Your task to perform on an android device: Search for logitech g910 on costco.com, select the first entry, add it to the cart, then select checkout. Image 0: 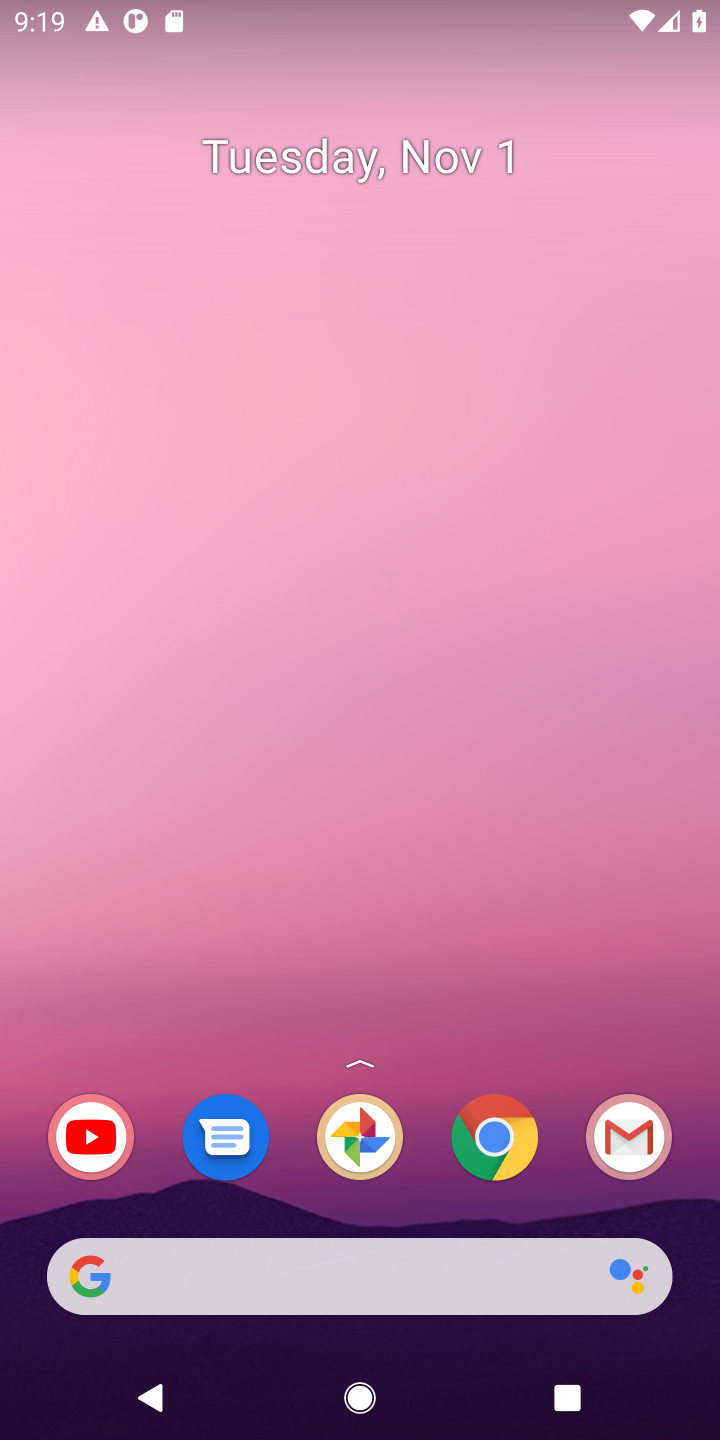
Step 0: click (310, 1263)
Your task to perform on an android device: Search for logitech g910 on costco.com, select the first entry, add it to the cart, then select checkout. Image 1: 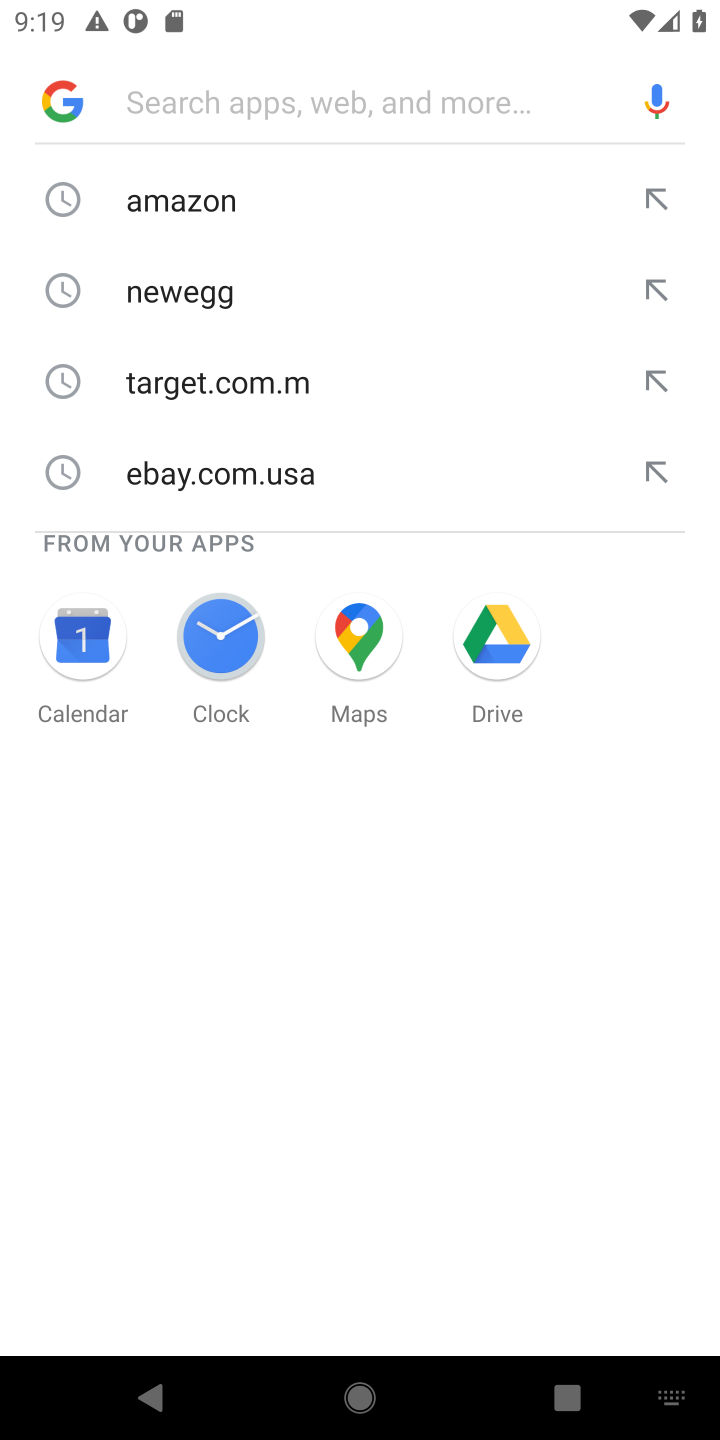
Step 1: type "costco.com"
Your task to perform on an android device: Search for logitech g910 on costco.com, select the first entry, add it to the cart, then select checkout. Image 2: 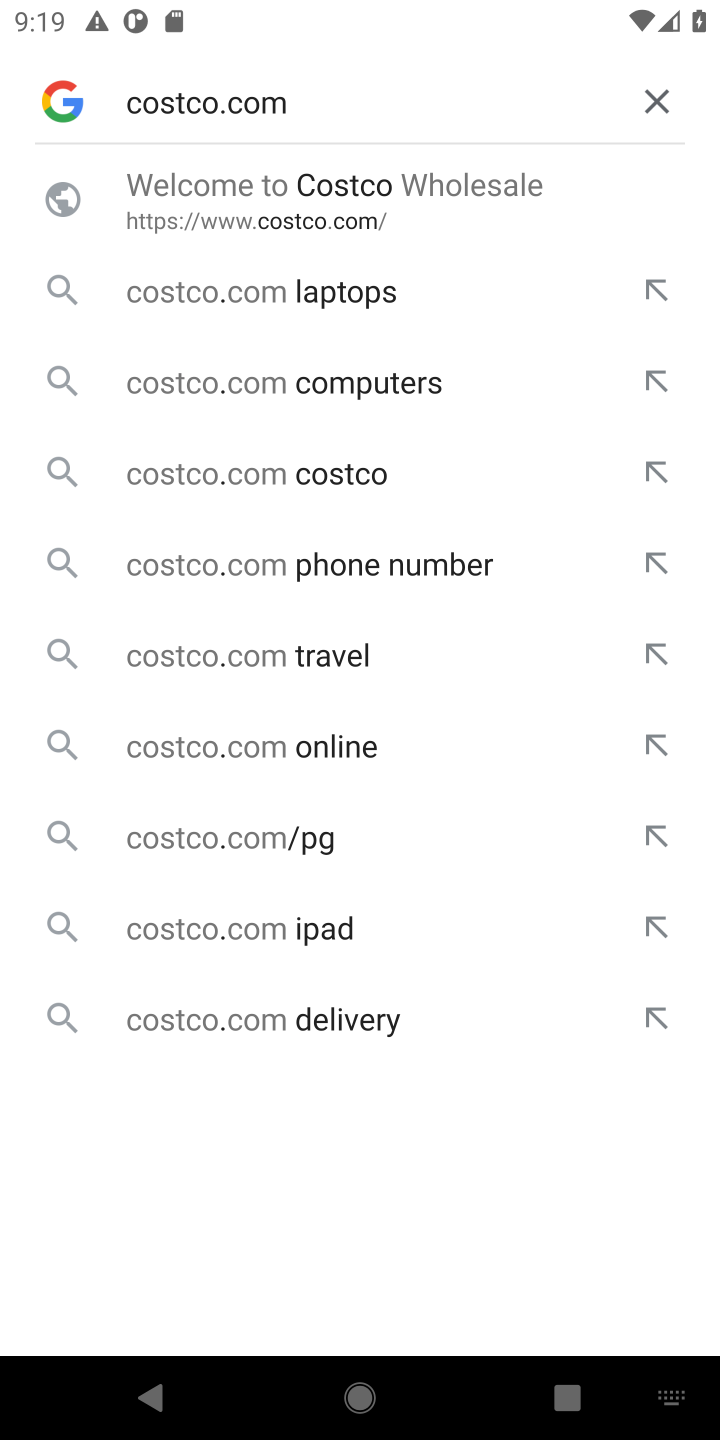
Step 2: click (349, 198)
Your task to perform on an android device: Search for logitech g910 on costco.com, select the first entry, add it to the cart, then select checkout. Image 3: 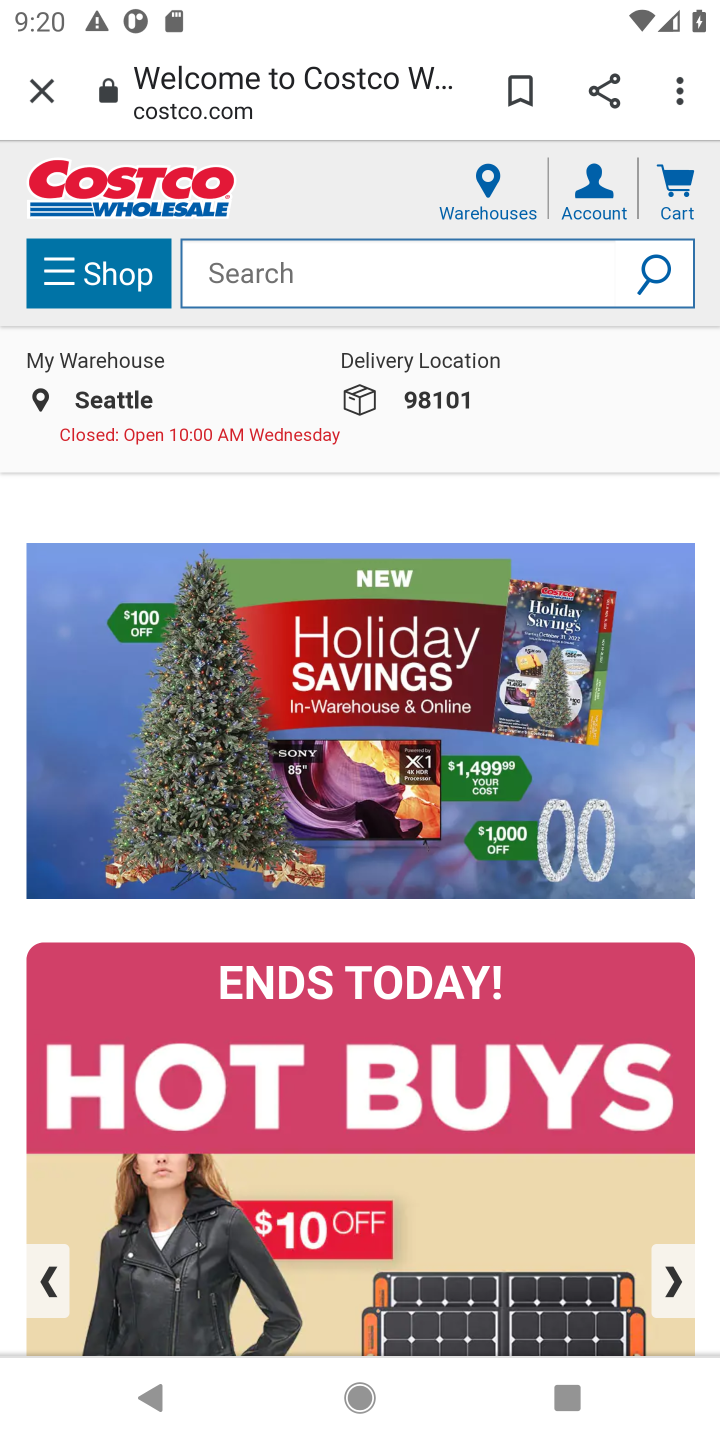
Step 3: click (384, 279)
Your task to perform on an android device: Search for logitech g910 on costco.com, select the first entry, add it to the cart, then select checkout. Image 4: 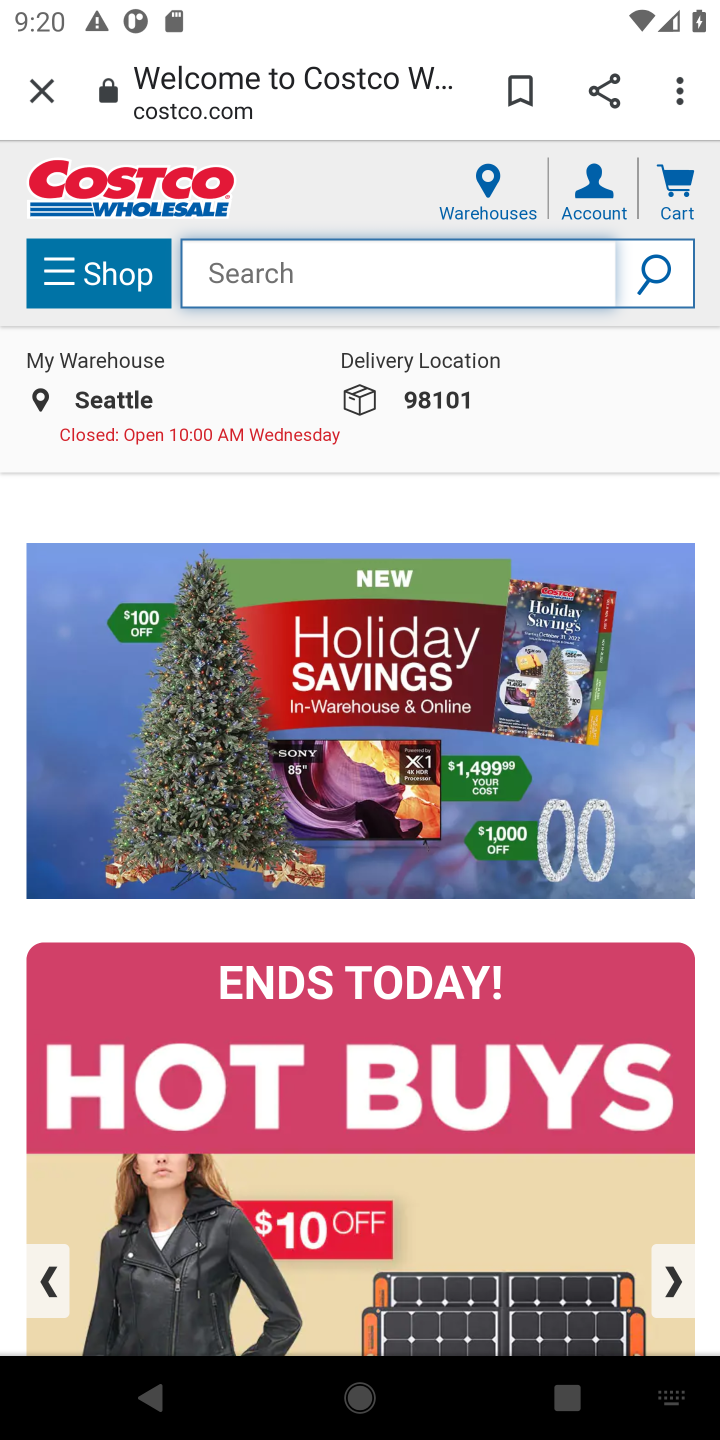
Step 4: type " g910 "
Your task to perform on an android device: Search for logitech g910 on costco.com, select the first entry, add it to the cart, then select checkout. Image 5: 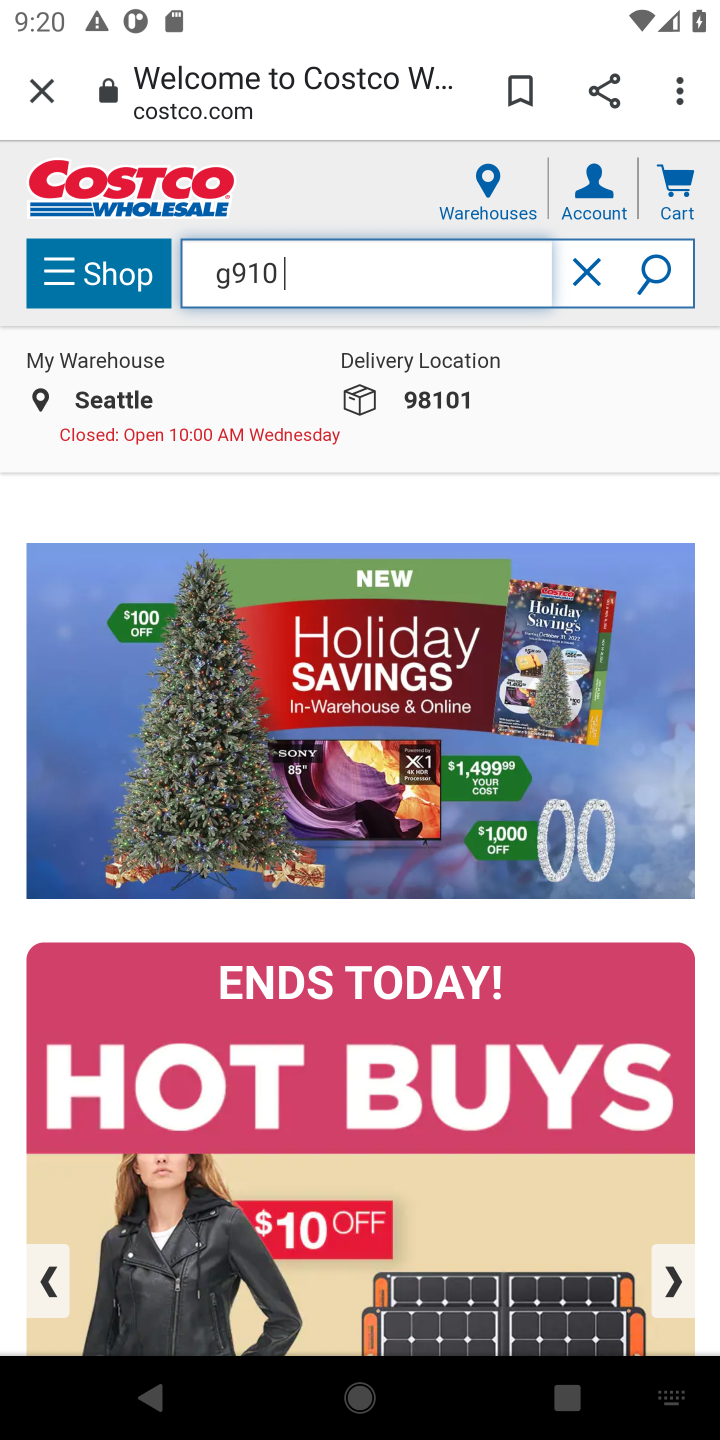
Step 5: click (646, 263)
Your task to perform on an android device: Search for logitech g910 on costco.com, select the first entry, add it to the cart, then select checkout. Image 6: 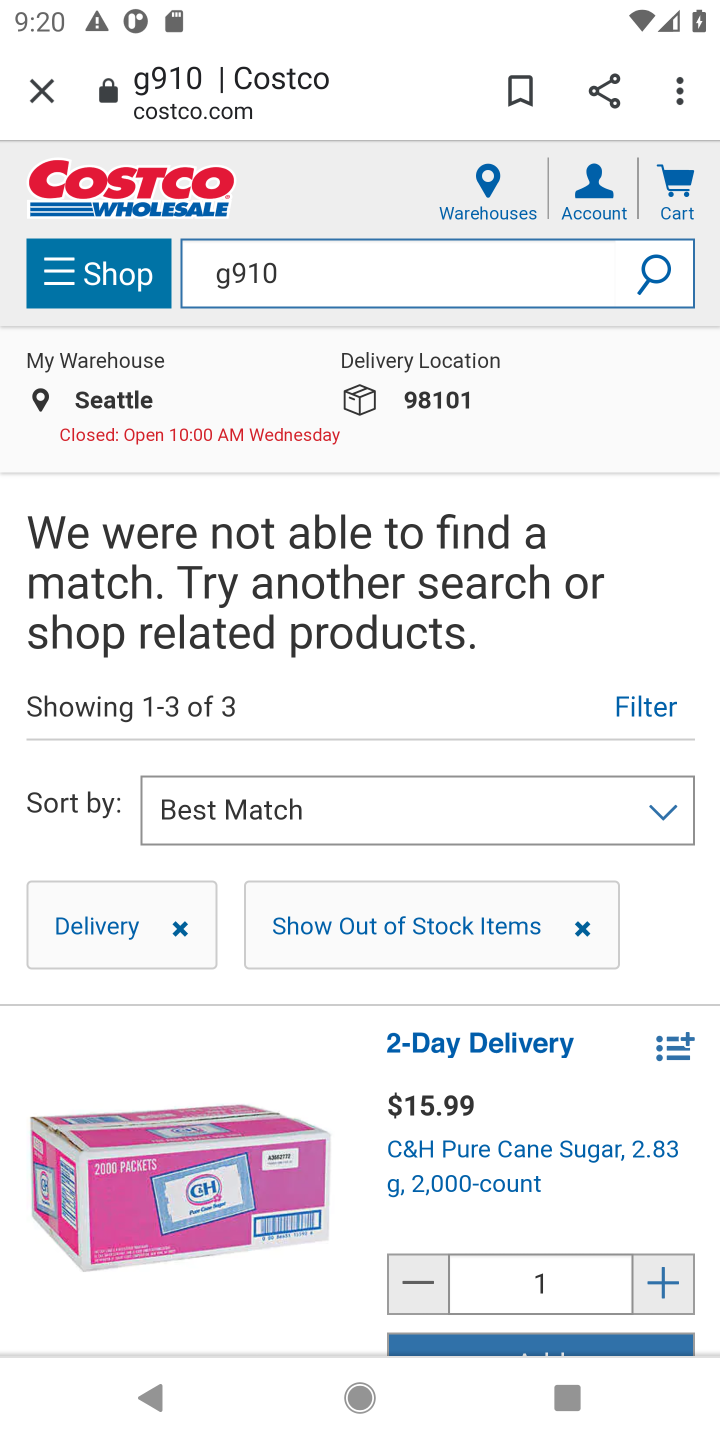
Step 6: click (451, 287)
Your task to perform on an android device: Search for logitech g910 on costco.com, select the first entry, add it to the cart, then select checkout. Image 7: 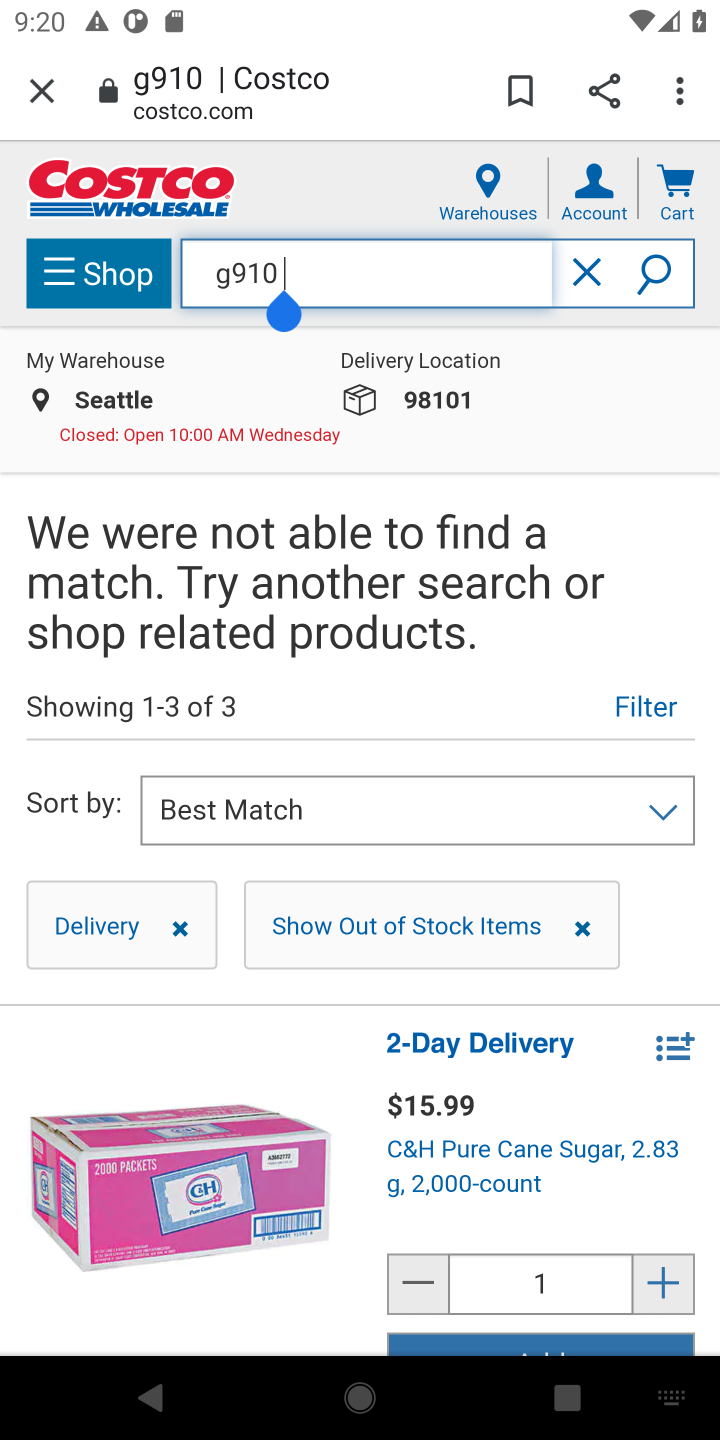
Step 7: click (588, 262)
Your task to perform on an android device: Search for logitech g910 on costco.com, select the first entry, add it to the cart, then select checkout. Image 8: 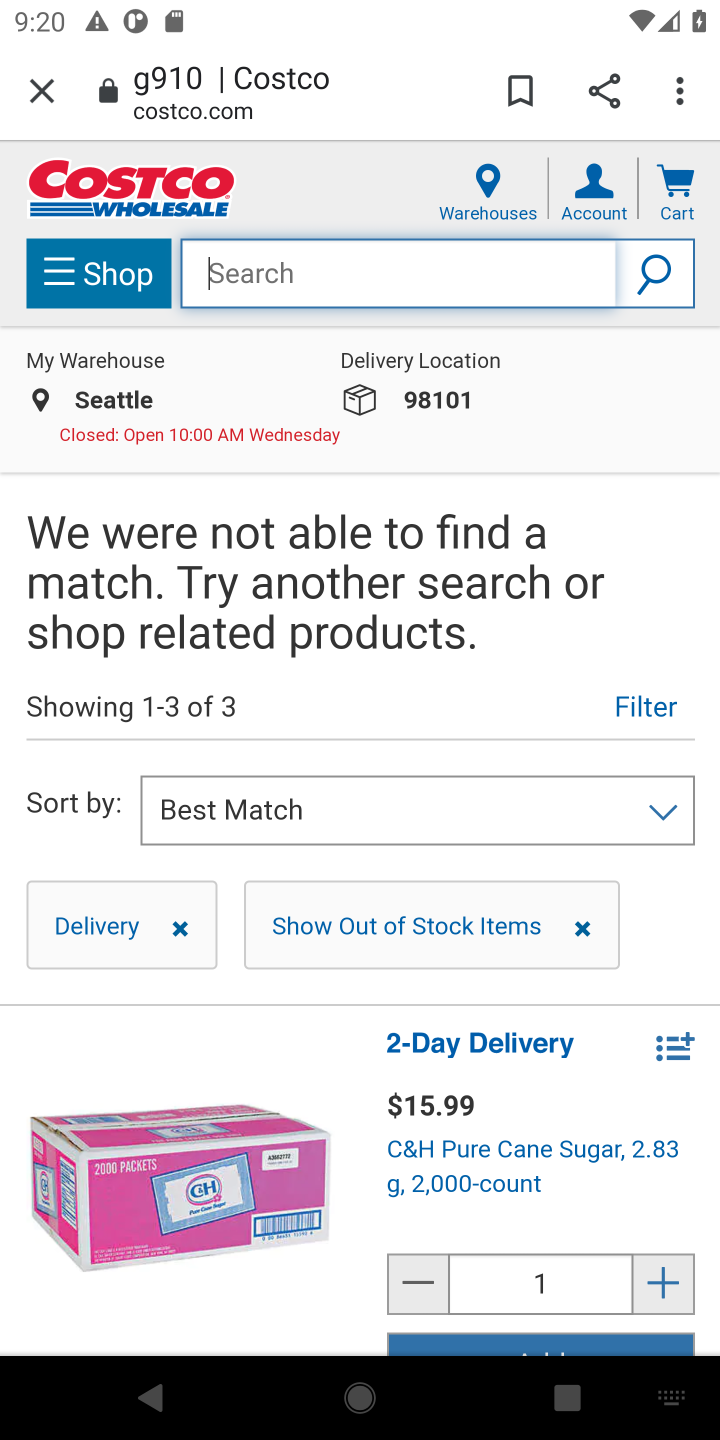
Step 8: type " logitech g910 "
Your task to perform on an android device: Search for logitech g910 on costco.com, select the first entry, add it to the cart, then select checkout. Image 9: 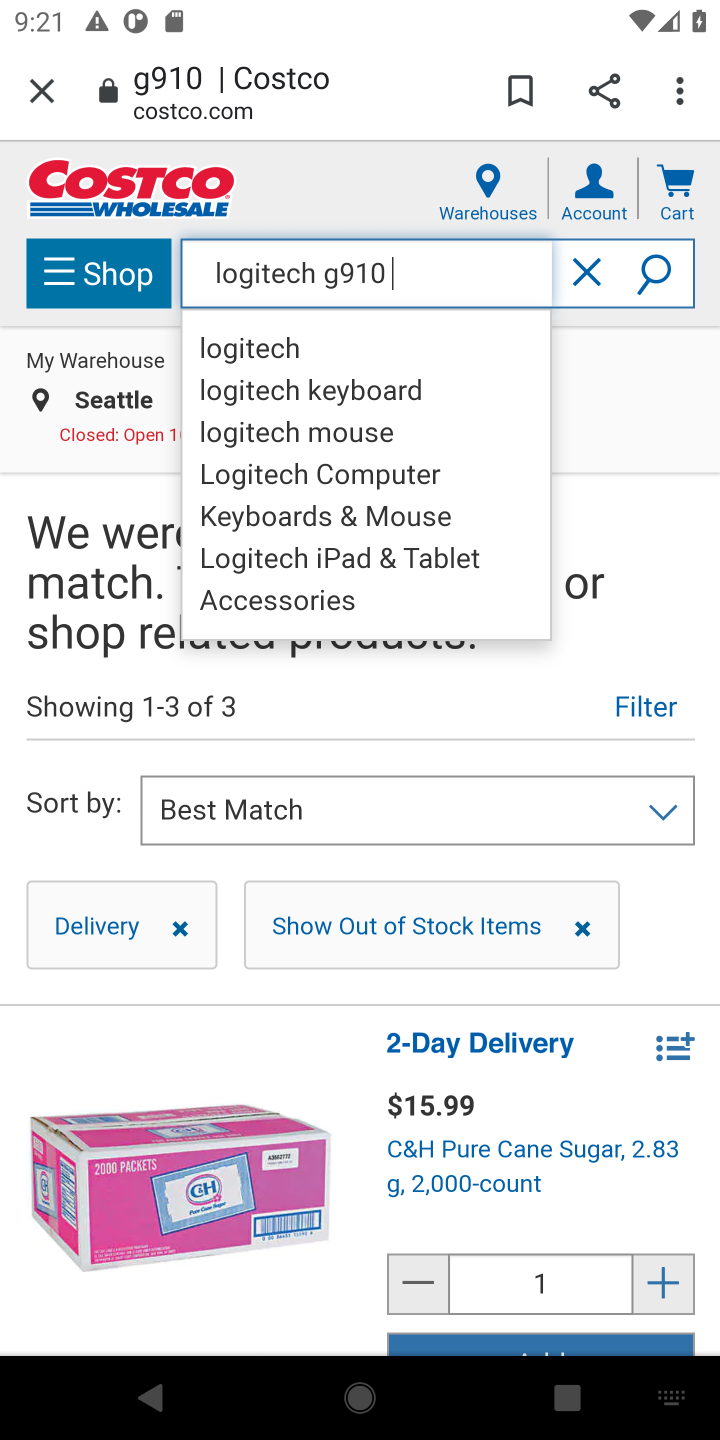
Step 9: click (277, 346)
Your task to perform on an android device: Search for logitech g910 on costco.com, select the first entry, add it to the cart, then select checkout. Image 10: 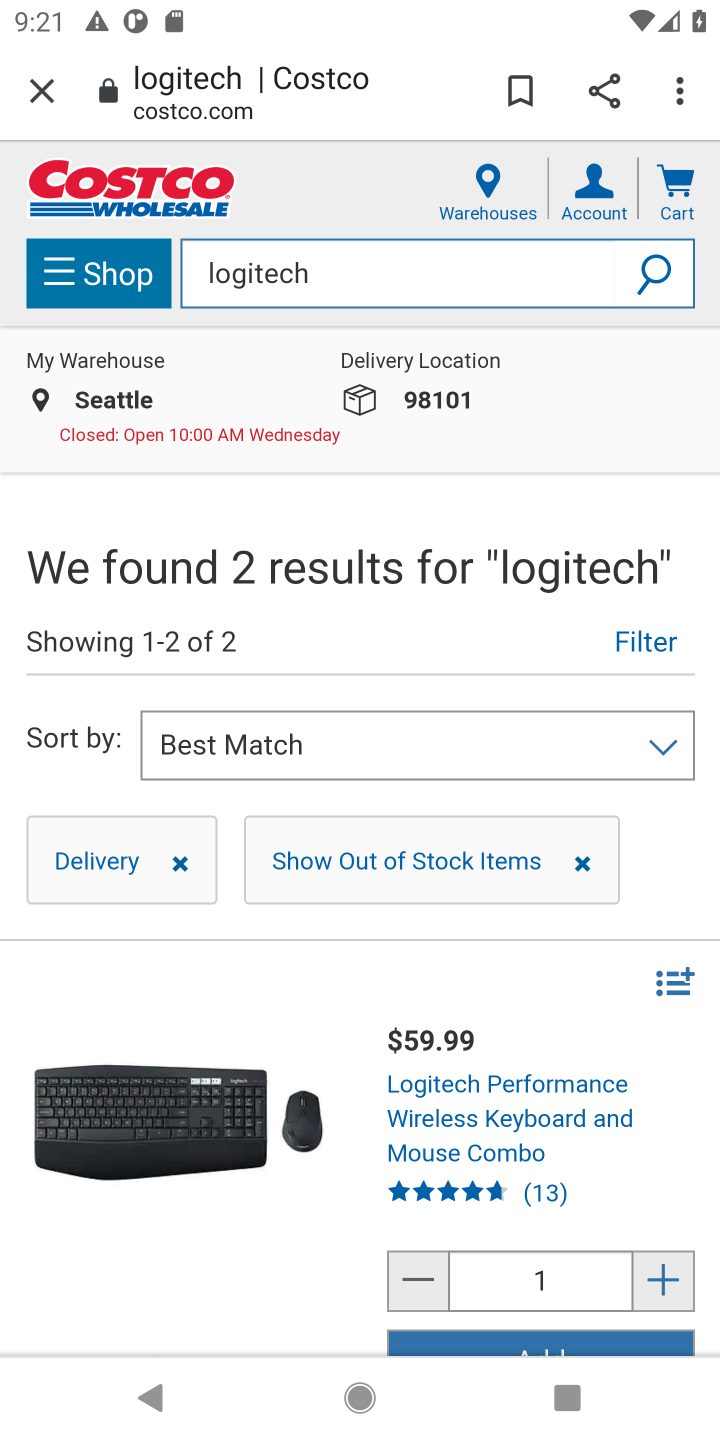
Step 10: click (455, 1140)
Your task to perform on an android device: Search for logitech g910 on costco.com, select the first entry, add it to the cart, then select checkout. Image 11: 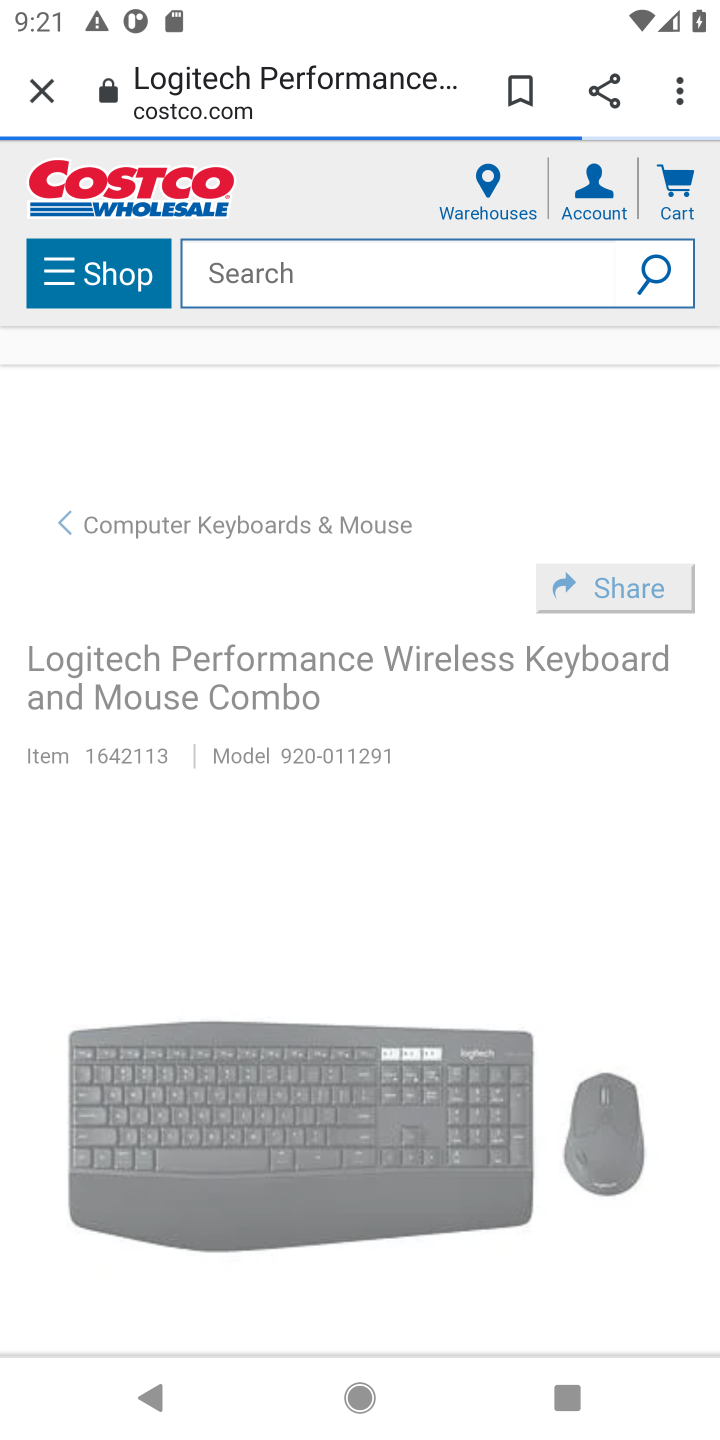
Step 11: click (441, 767)
Your task to perform on an android device: Search for logitech g910 on costco.com, select the first entry, add it to the cart, then select checkout. Image 12: 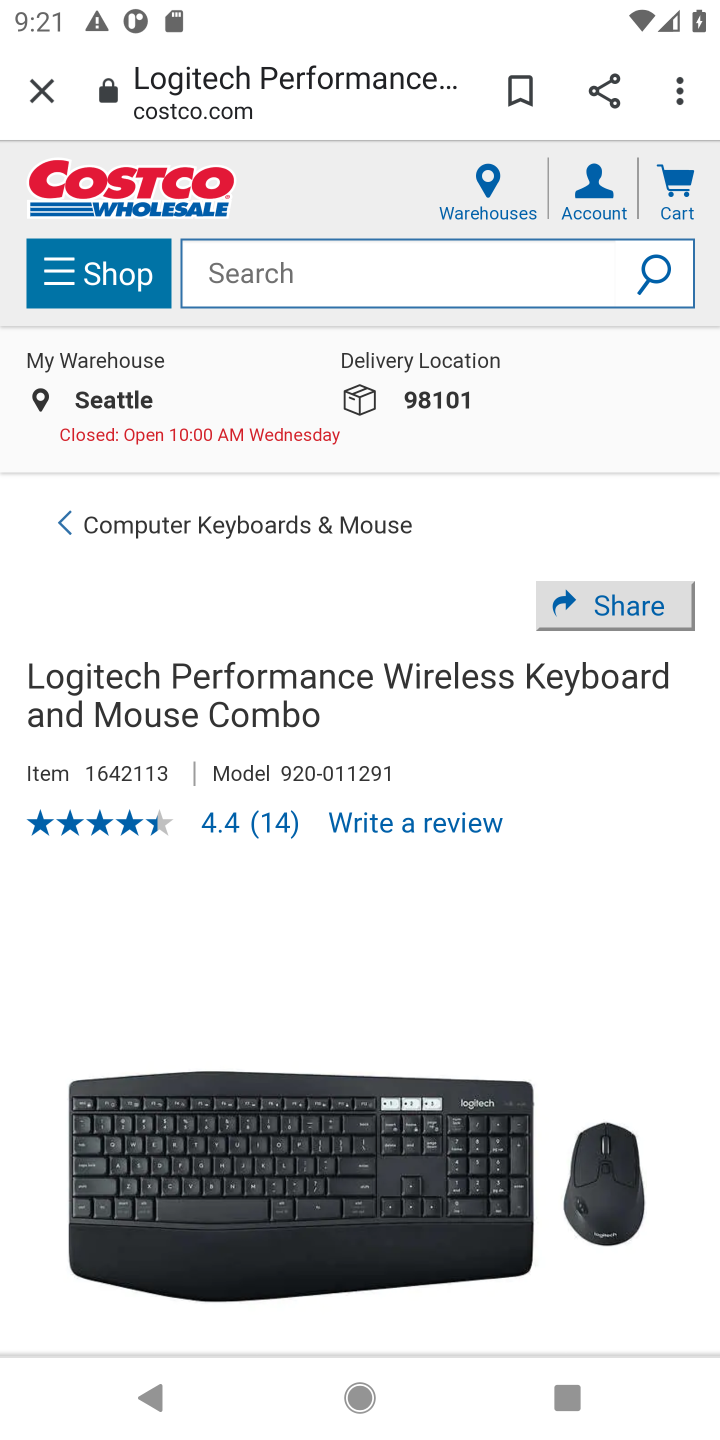
Step 12: click (344, 557)
Your task to perform on an android device: Search for logitech g910 on costco.com, select the first entry, add it to the cart, then select checkout. Image 13: 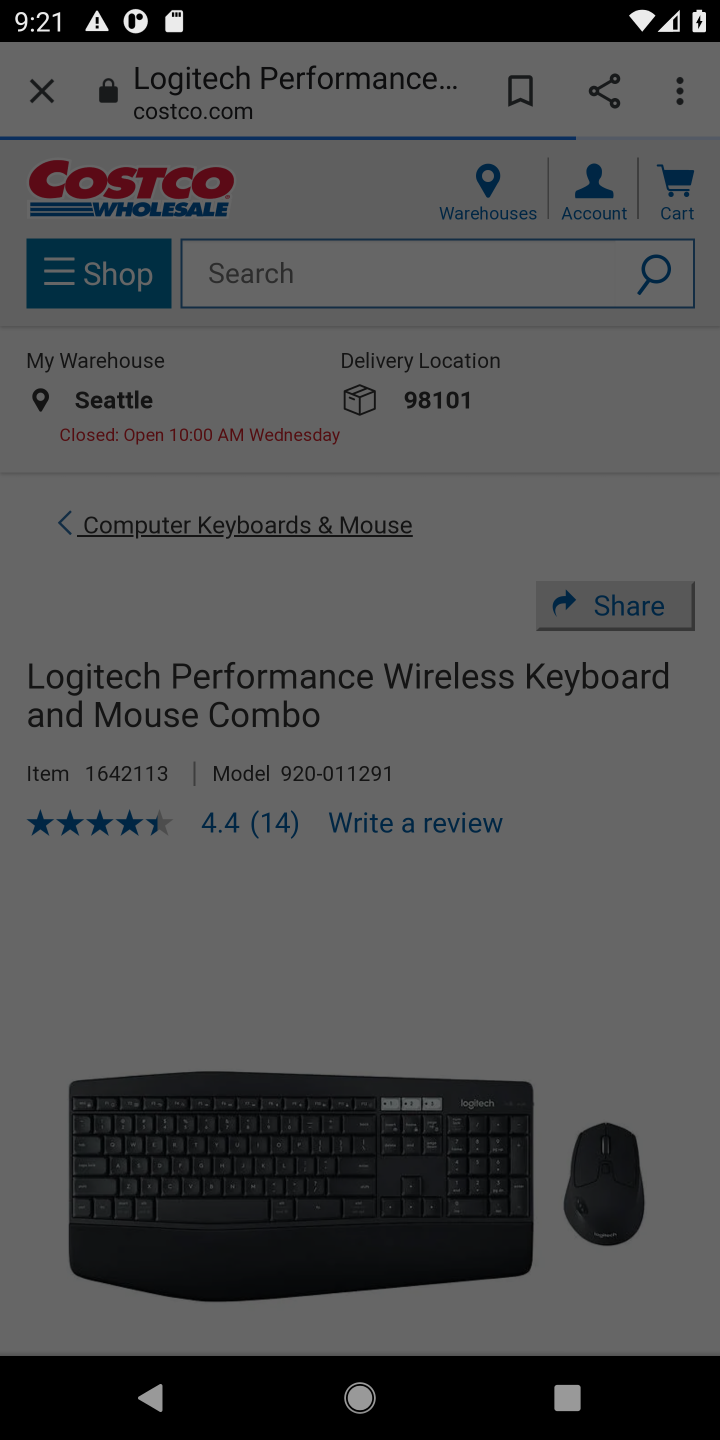
Step 13: drag from (201, 979) to (277, 629)
Your task to perform on an android device: Search for logitech g910 on costco.com, select the first entry, add it to the cart, then select checkout. Image 14: 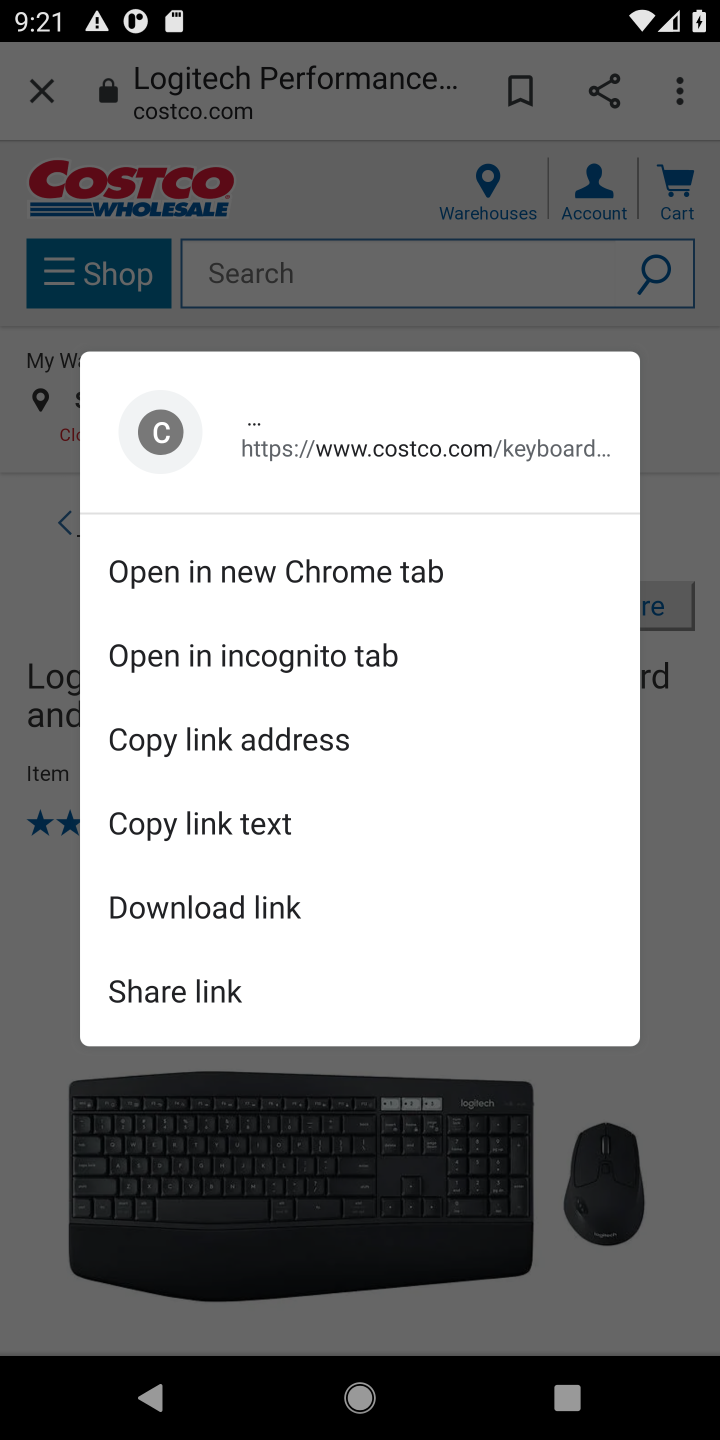
Step 14: press back button
Your task to perform on an android device: Search for logitech g910 on costco.com, select the first entry, add it to the cart, then select checkout. Image 15: 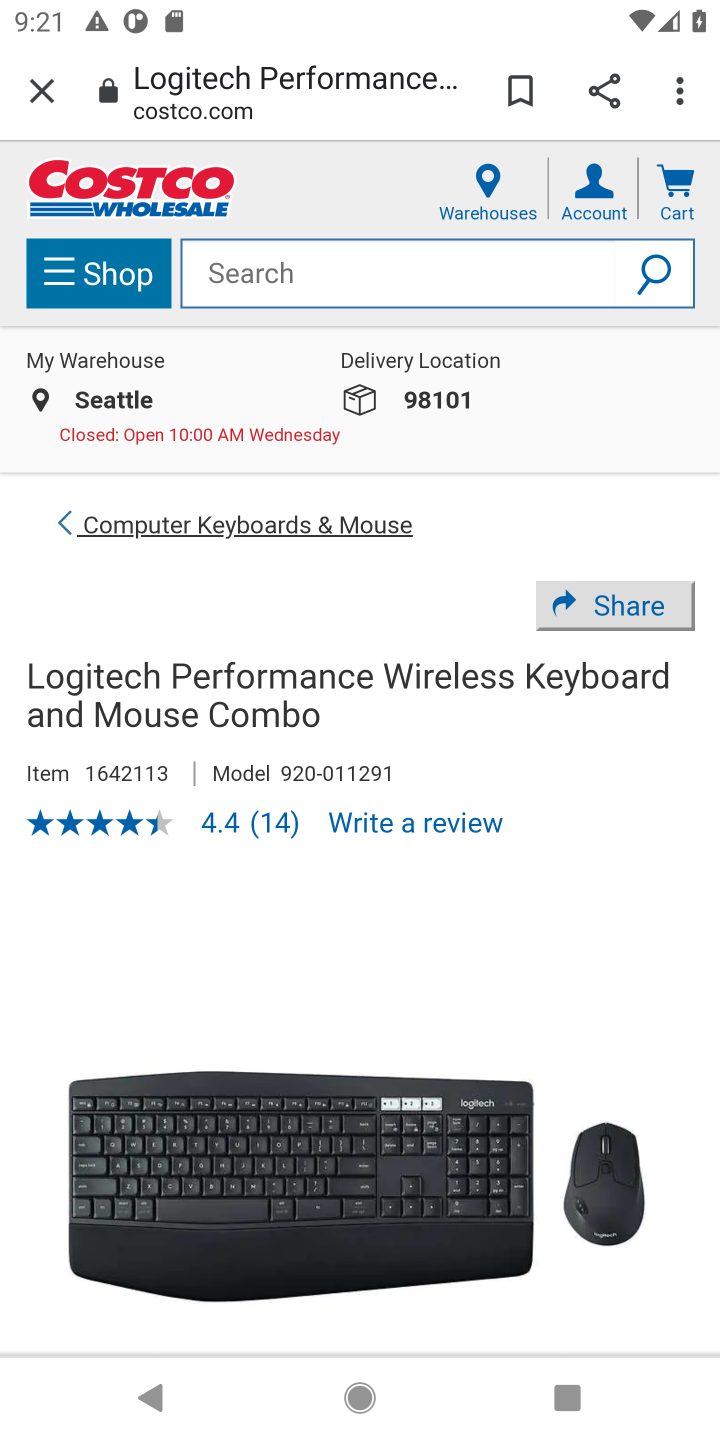
Step 15: drag from (558, 1275) to (279, 639)
Your task to perform on an android device: Search for logitech g910 on costco.com, select the first entry, add it to the cart, then select checkout. Image 16: 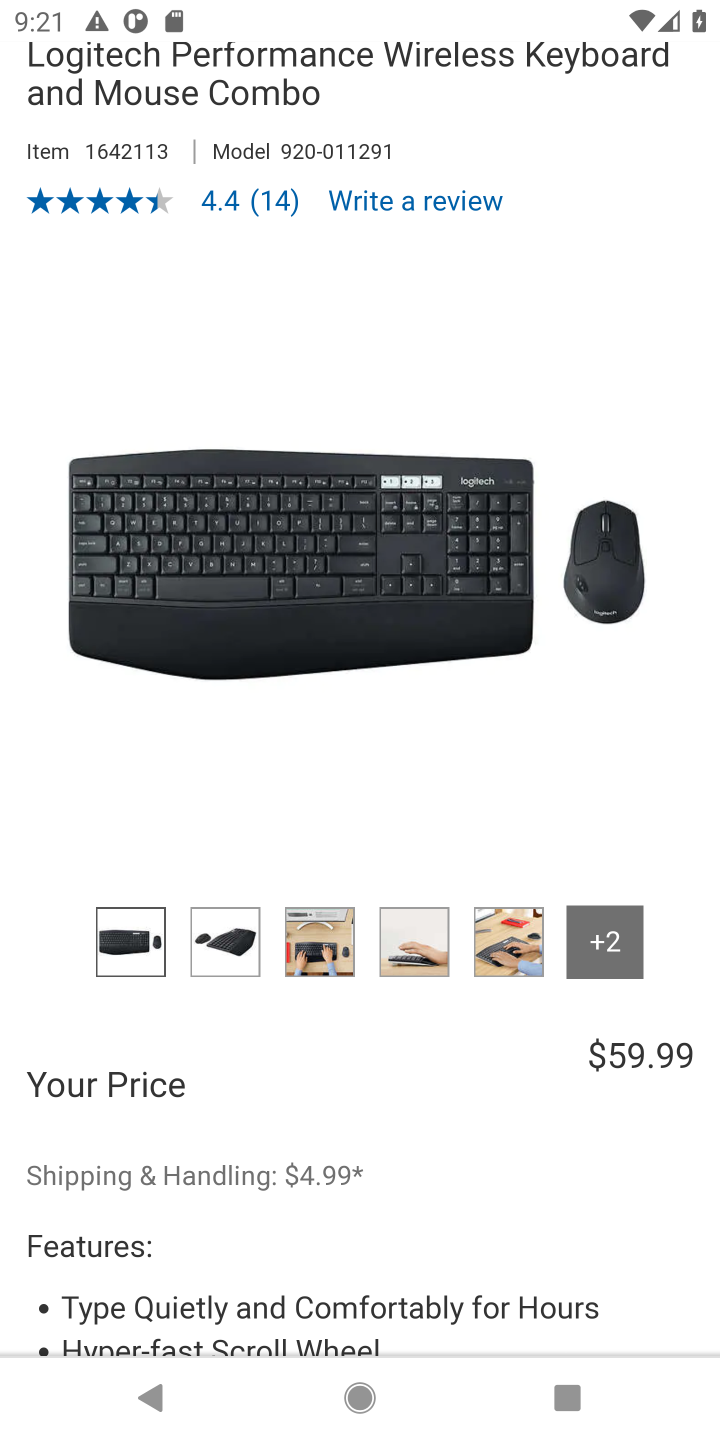
Step 16: click (304, 607)
Your task to perform on an android device: Search for logitech g910 on costco.com, select the first entry, add it to the cart, then select checkout. Image 17: 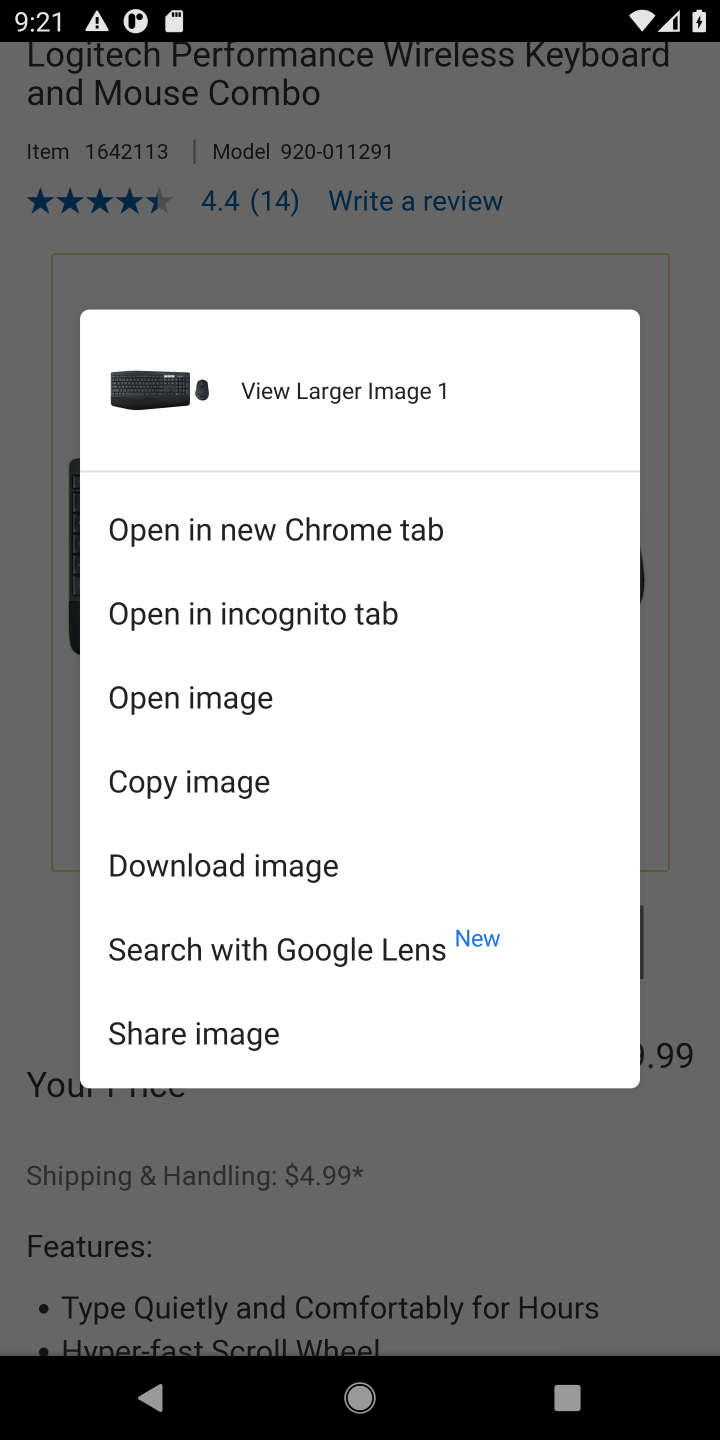
Step 17: press back button
Your task to perform on an android device: Search for logitech g910 on costco.com, select the first entry, add it to the cart, then select checkout. Image 18: 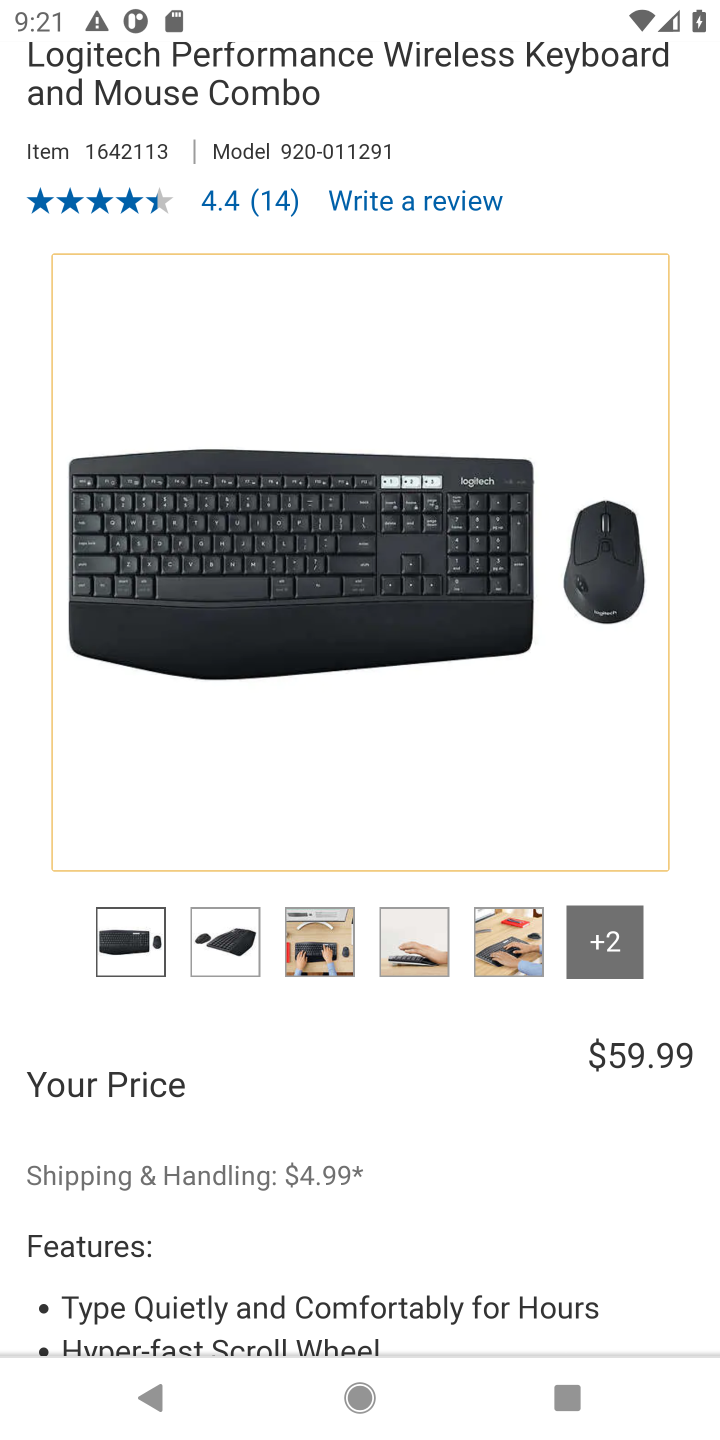
Step 18: click (519, 611)
Your task to perform on an android device: Search for logitech g910 on costco.com, select the first entry, add it to the cart, then select checkout. Image 19: 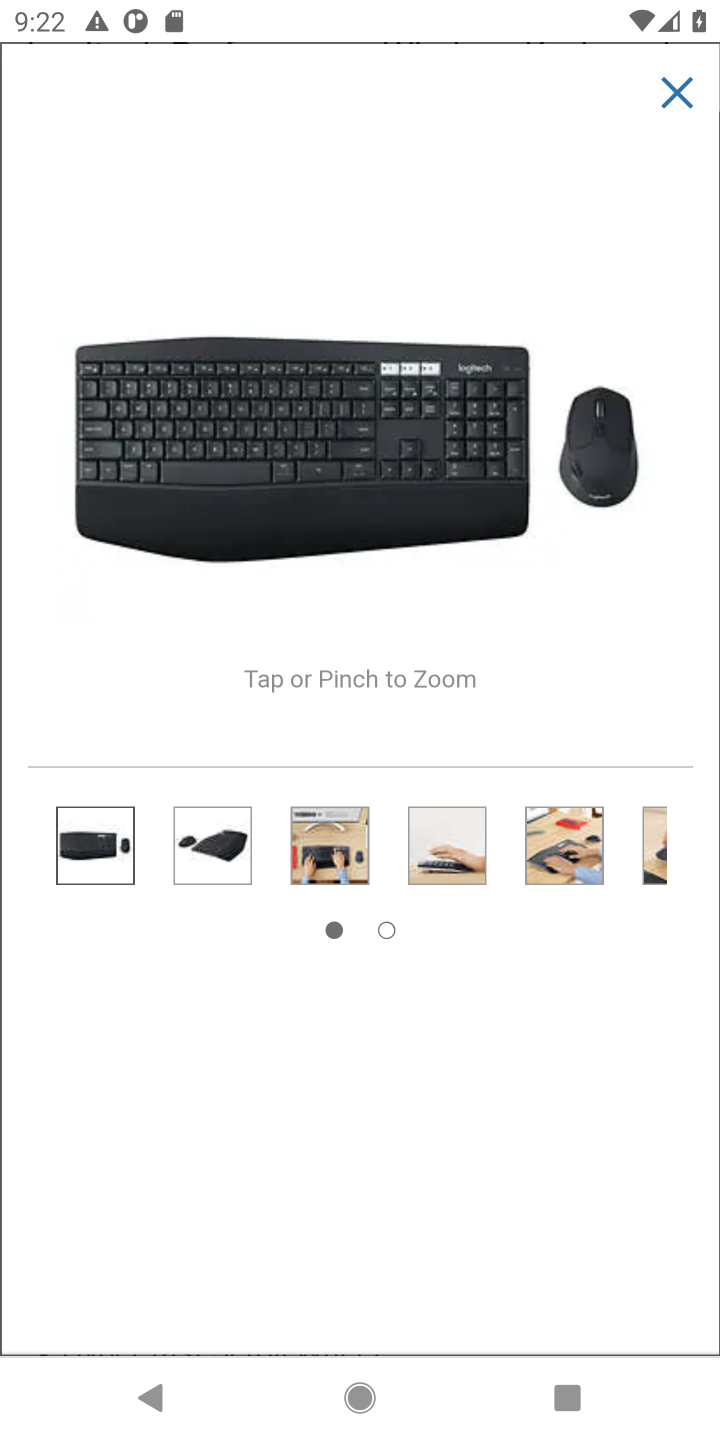
Step 19: click (670, 98)
Your task to perform on an android device: Search for logitech g910 on costco.com, select the first entry, add it to the cart, then select checkout. Image 20: 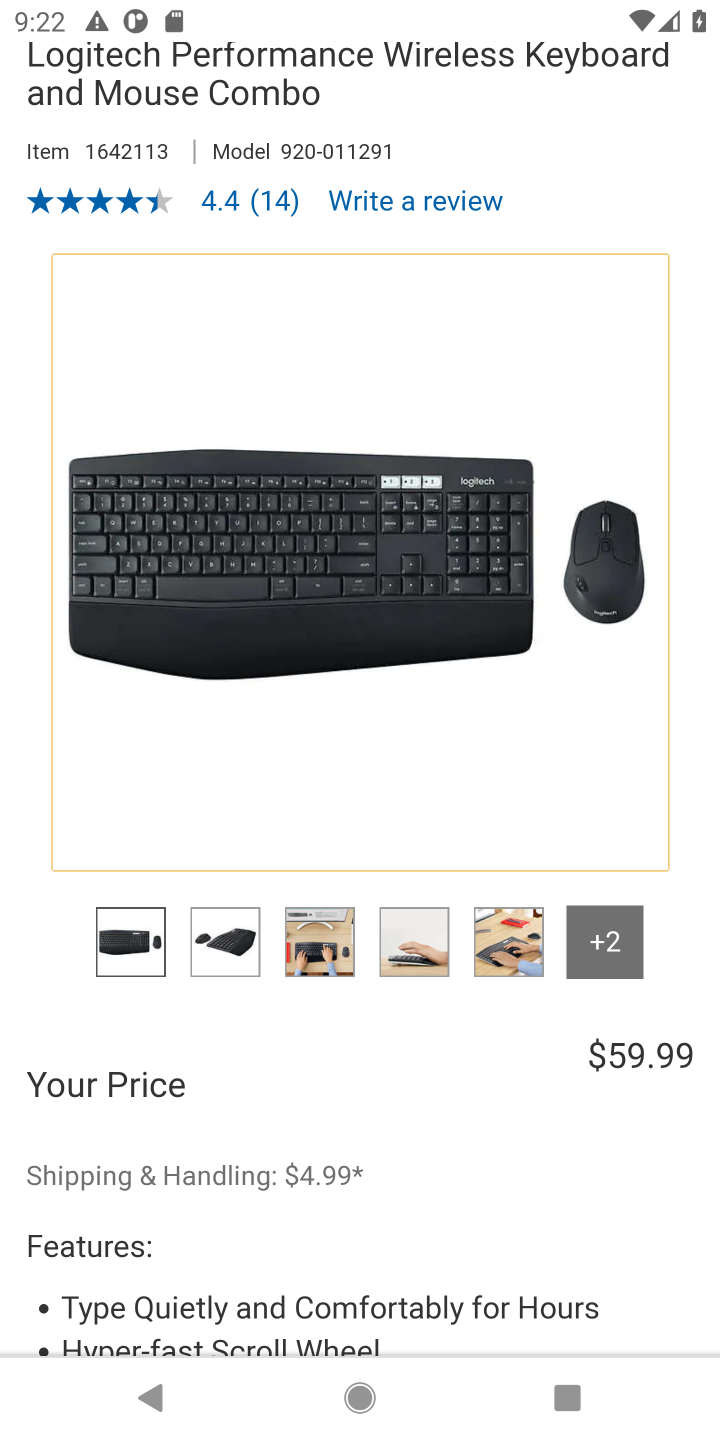
Step 20: drag from (221, 1238) to (277, 570)
Your task to perform on an android device: Search for logitech g910 on costco.com, select the first entry, add it to the cart, then select checkout. Image 21: 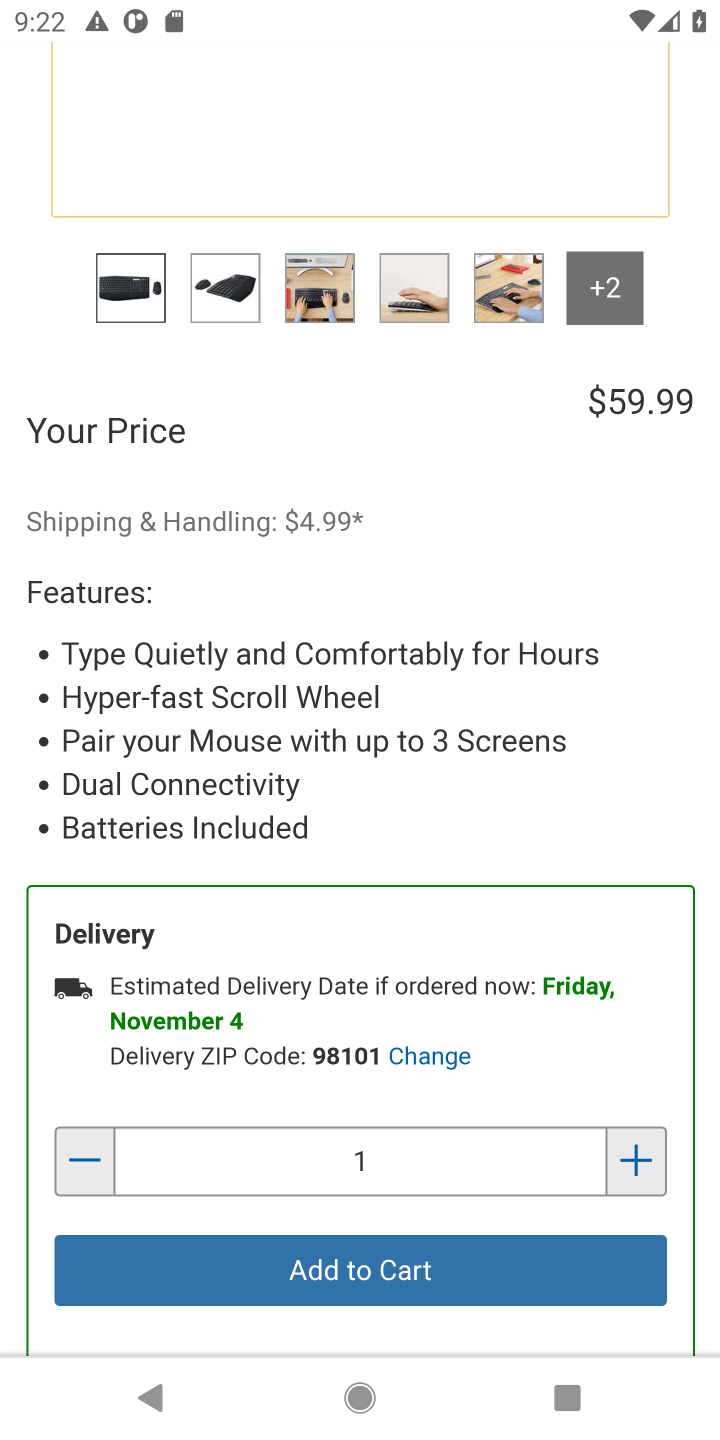
Step 21: click (356, 1260)
Your task to perform on an android device: Search for logitech g910 on costco.com, select the first entry, add it to the cart, then select checkout. Image 22: 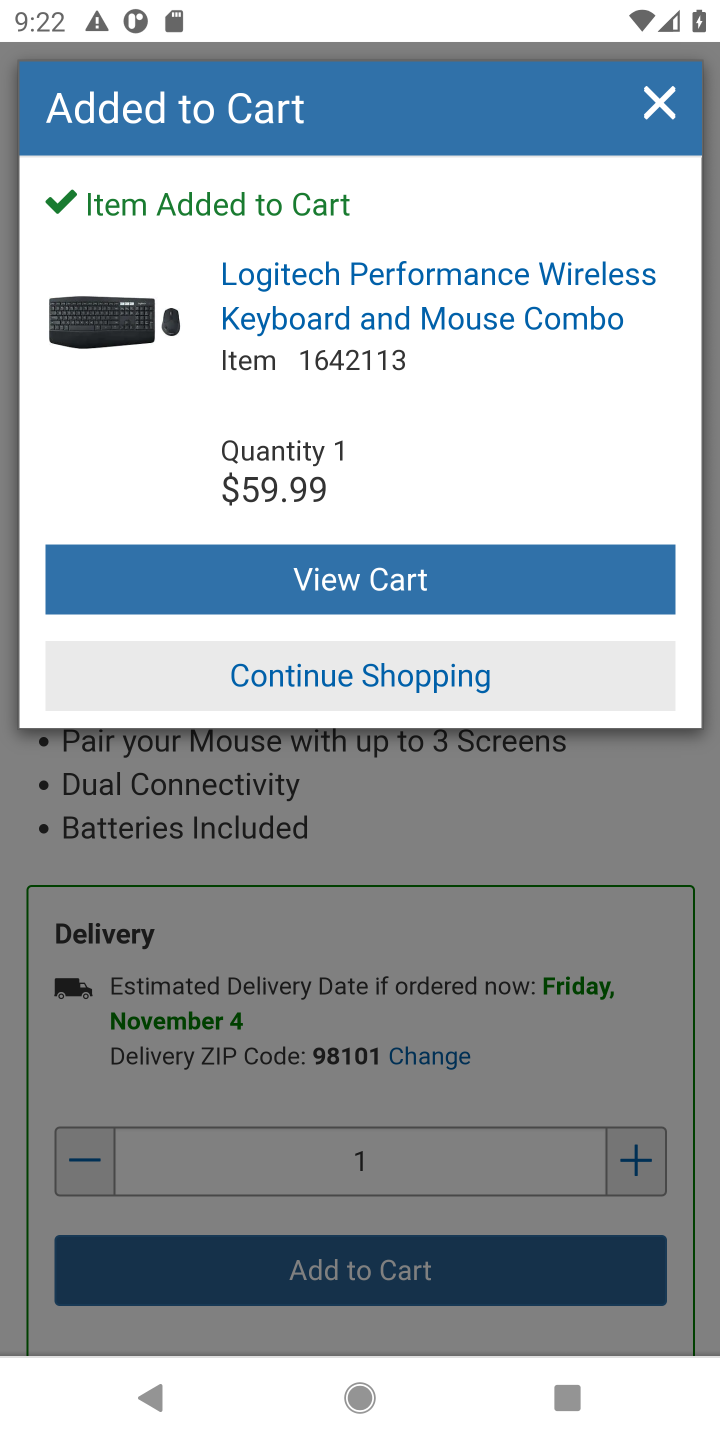
Step 22: click (375, 585)
Your task to perform on an android device: Search for logitech g910 on costco.com, select the first entry, add it to the cart, then select checkout. Image 23: 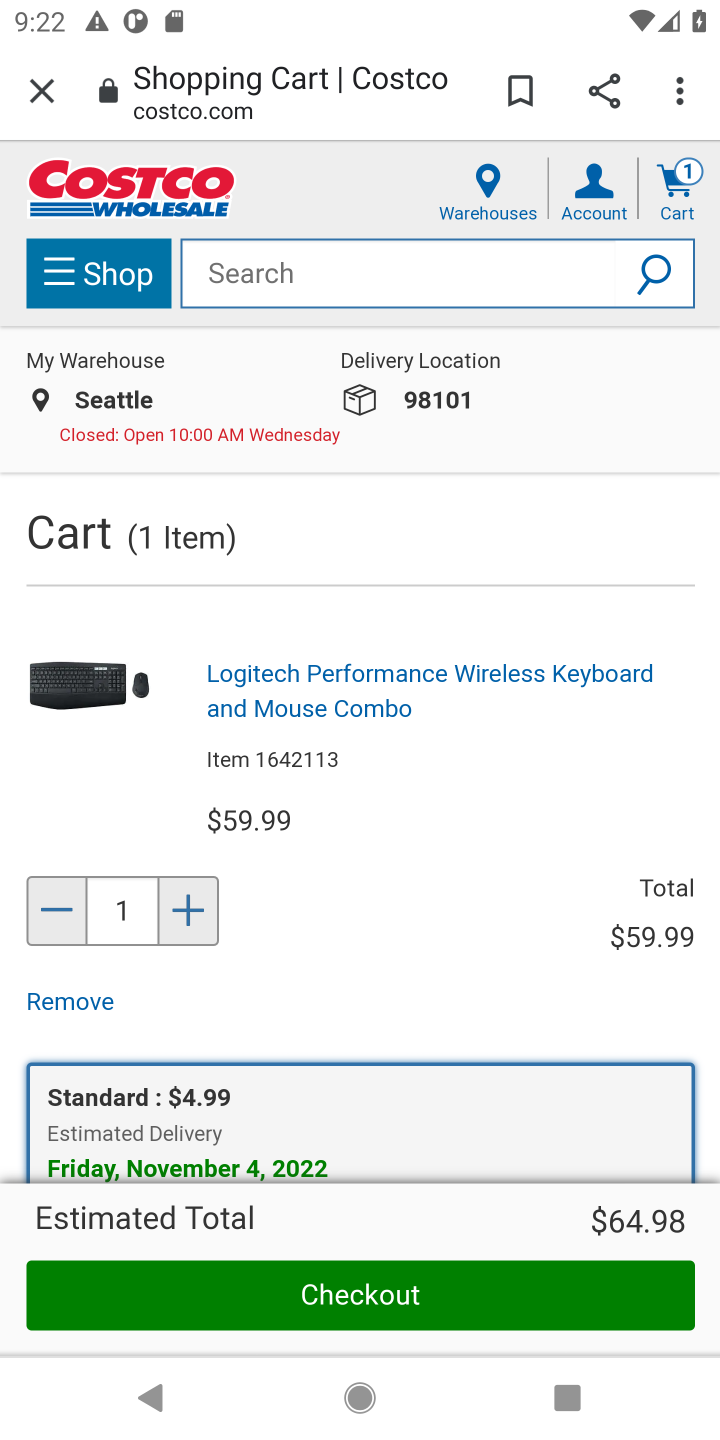
Step 23: click (345, 1285)
Your task to perform on an android device: Search for logitech g910 on costco.com, select the first entry, add it to the cart, then select checkout. Image 24: 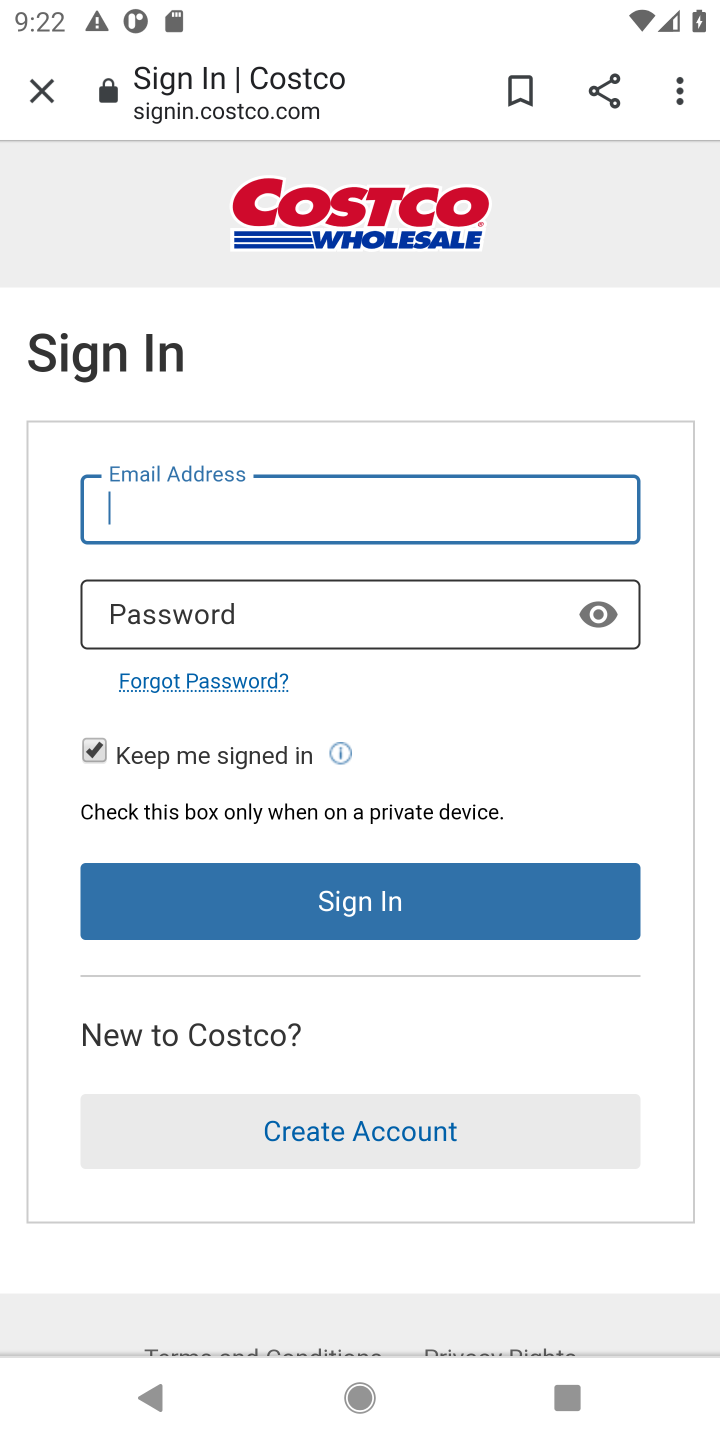
Step 24: task complete